Your task to perform on an android device: check the backup settings in the google photos Image 0: 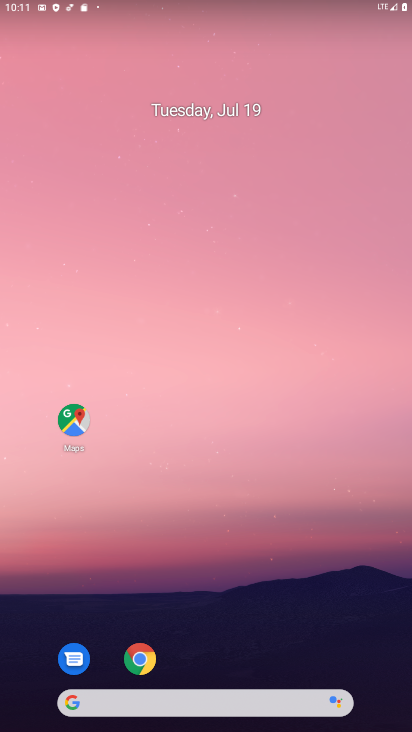
Step 0: drag from (246, 652) to (257, 278)
Your task to perform on an android device: check the backup settings in the google photos Image 1: 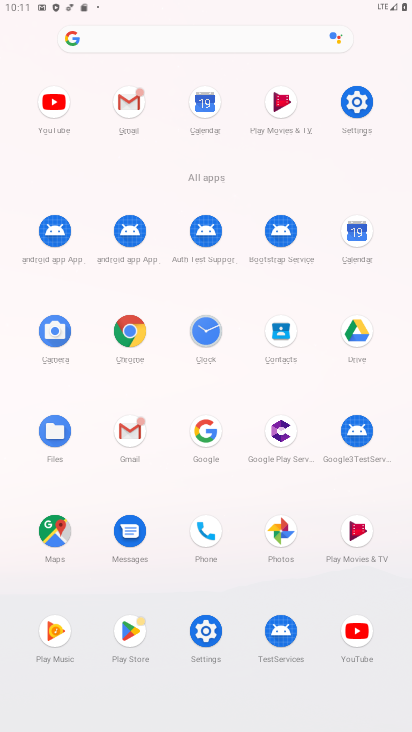
Step 1: click (280, 528)
Your task to perform on an android device: check the backup settings in the google photos Image 2: 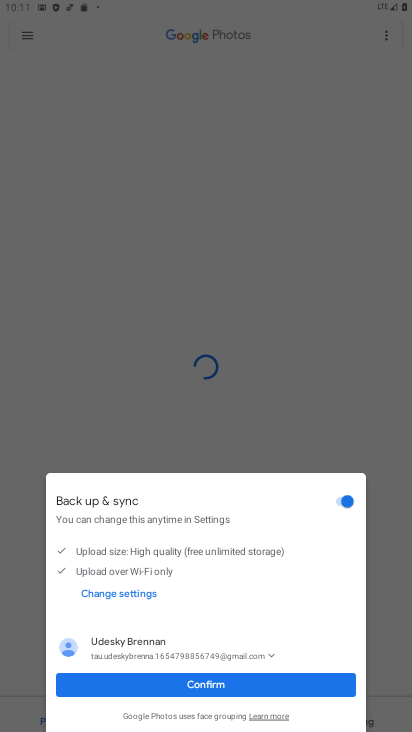
Step 2: click (221, 680)
Your task to perform on an android device: check the backup settings in the google photos Image 3: 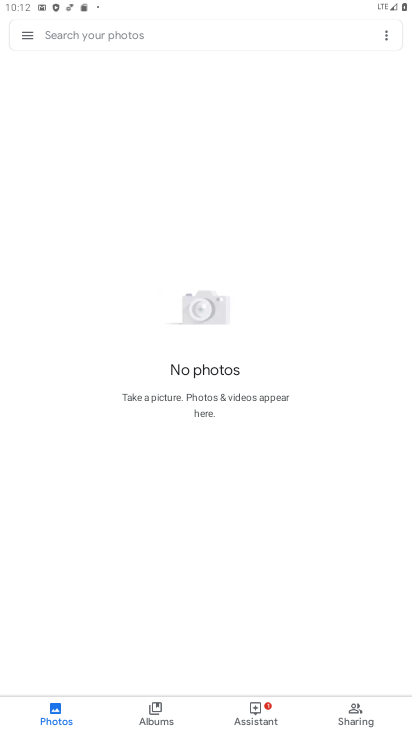
Step 3: task complete